Your task to perform on an android device: turn on the 24-hour format for clock Image 0: 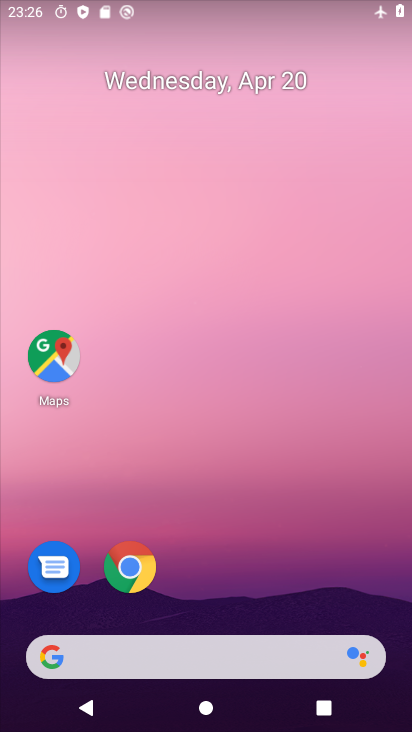
Step 0: drag from (296, 243) to (295, 205)
Your task to perform on an android device: turn on the 24-hour format for clock Image 1: 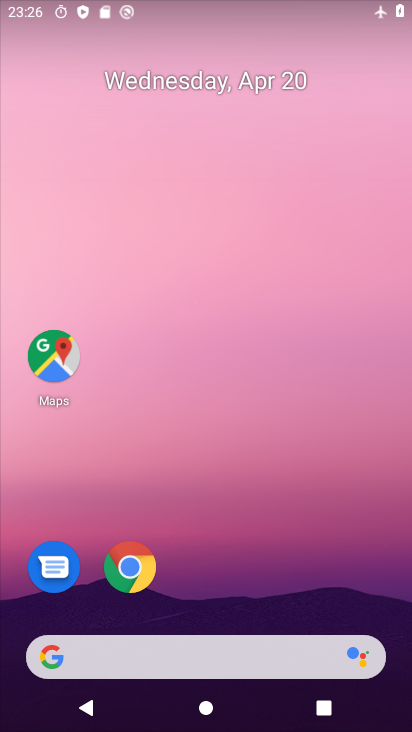
Step 1: drag from (275, 528) to (277, 184)
Your task to perform on an android device: turn on the 24-hour format for clock Image 2: 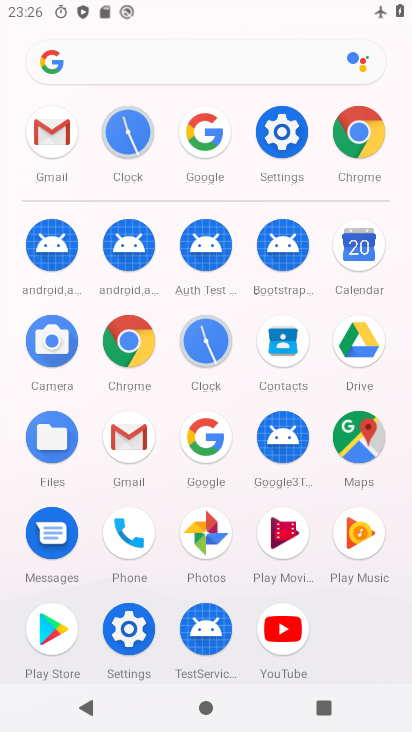
Step 2: click (199, 331)
Your task to perform on an android device: turn on the 24-hour format for clock Image 3: 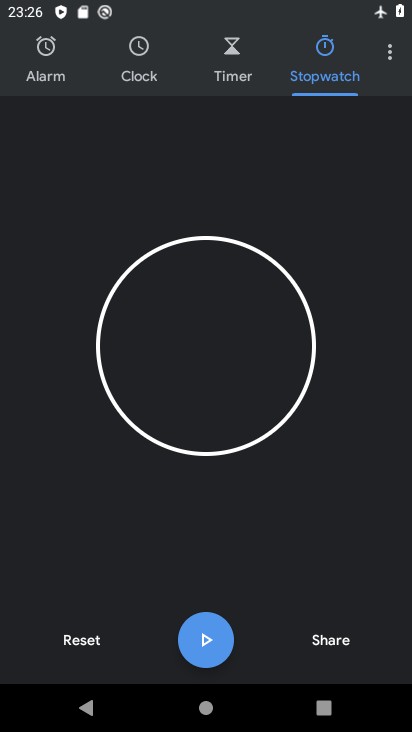
Step 3: click (393, 42)
Your task to perform on an android device: turn on the 24-hour format for clock Image 4: 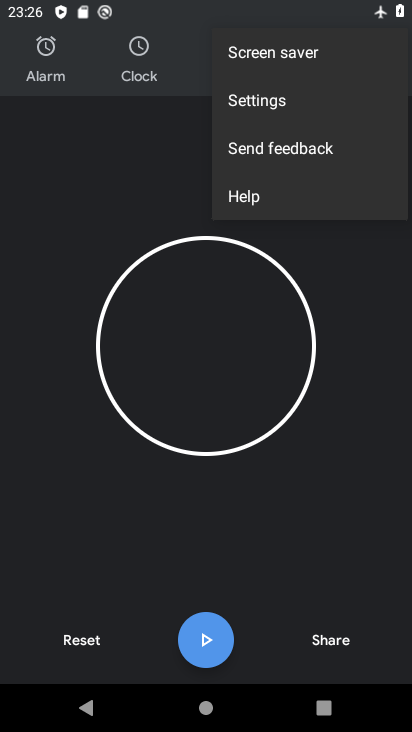
Step 4: click (349, 99)
Your task to perform on an android device: turn on the 24-hour format for clock Image 5: 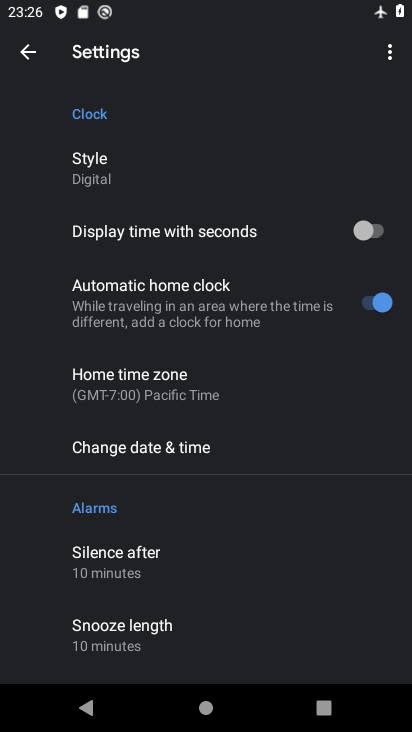
Step 5: click (213, 454)
Your task to perform on an android device: turn on the 24-hour format for clock Image 6: 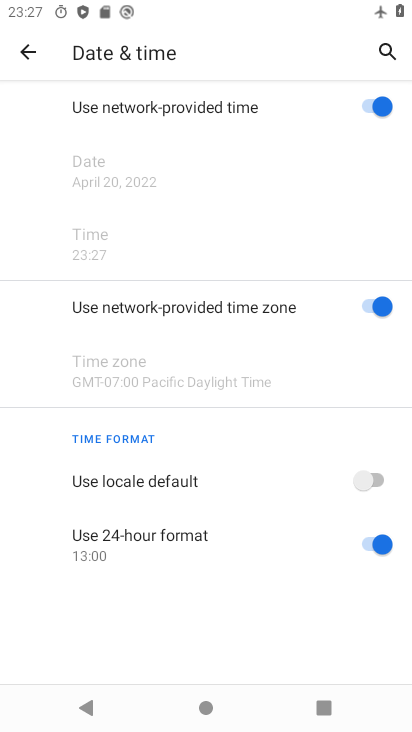
Step 6: task complete